Your task to perform on an android device: allow notifications from all sites in the chrome app Image 0: 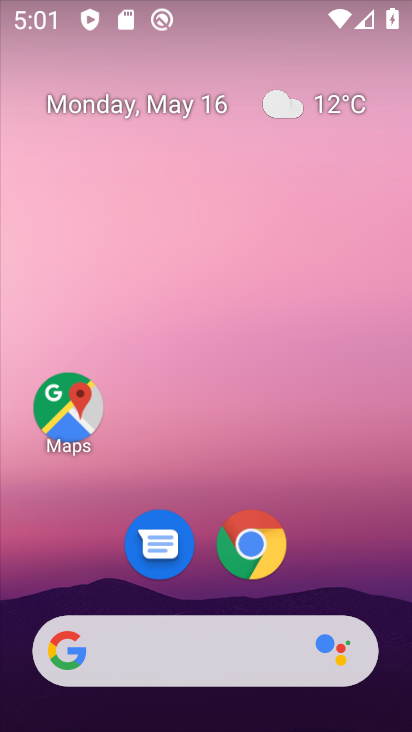
Step 0: click (254, 544)
Your task to perform on an android device: allow notifications from all sites in the chrome app Image 1: 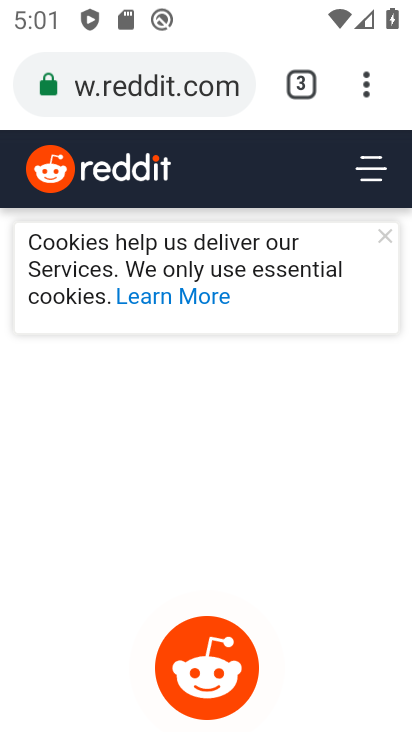
Step 1: click (367, 84)
Your task to perform on an android device: allow notifications from all sites in the chrome app Image 2: 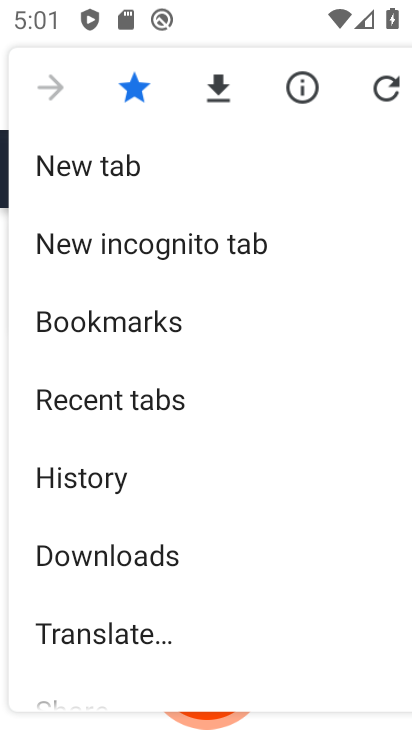
Step 2: drag from (159, 473) to (190, 396)
Your task to perform on an android device: allow notifications from all sites in the chrome app Image 3: 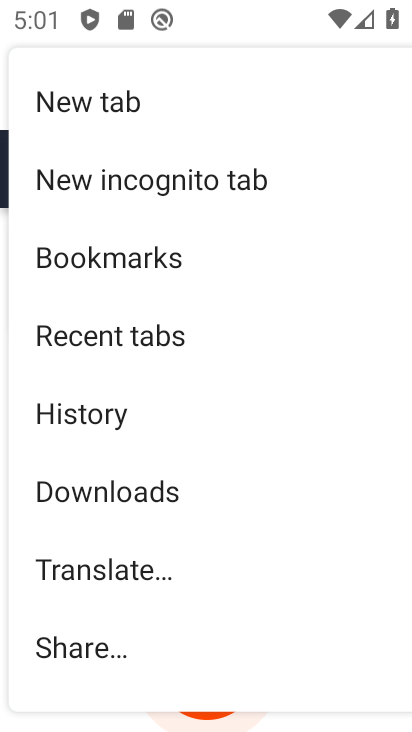
Step 3: drag from (141, 535) to (172, 467)
Your task to perform on an android device: allow notifications from all sites in the chrome app Image 4: 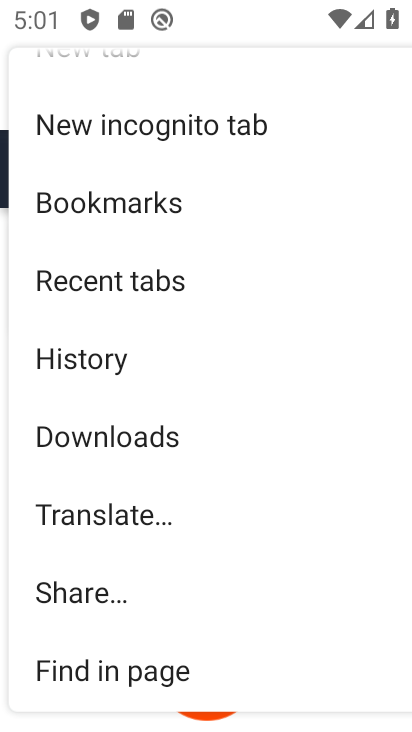
Step 4: drag from (161, 537) to (199, 436)
Your task to perform on an android device: allow notifications from all sites in the chrome app Image 5: 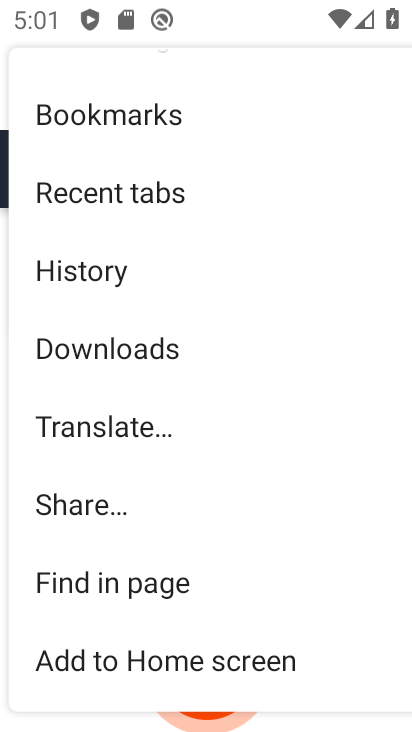
Step 5: drag from (136, 545) to (188, 450)
Your task to perform on an android device: allow notifications from all sites in the chrome app Image 6: 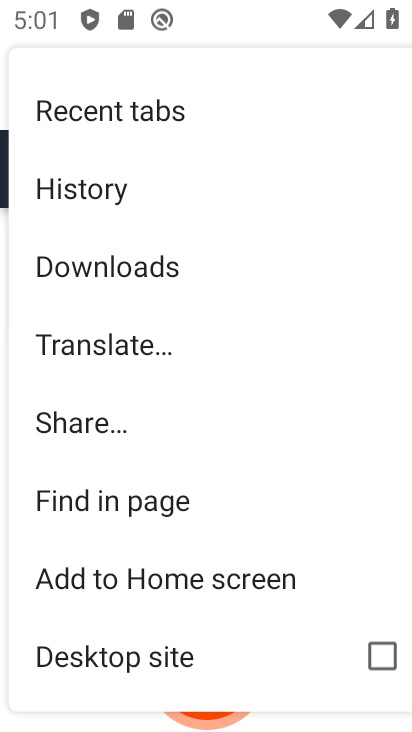
Step 6: drag from (143, 541) to (203, 427)
Your task to perform on an android device: allow notifications from all sites in the chrome app Image 7: 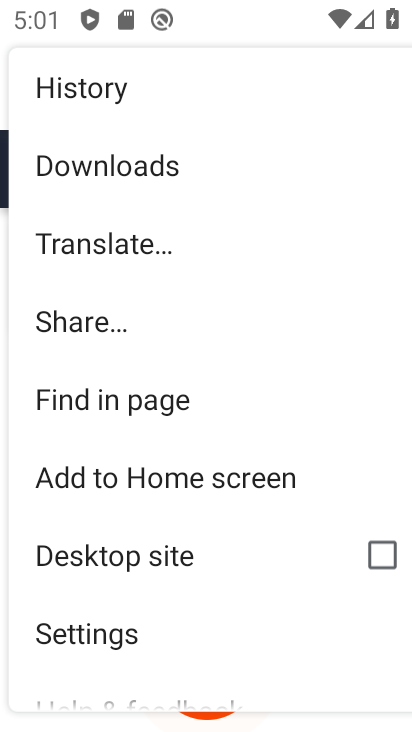
Step 7: drag from (119, 593) to (211, 438)
Your task to perform on an android device: allow notifications from all sites in the chrome app Image 8: 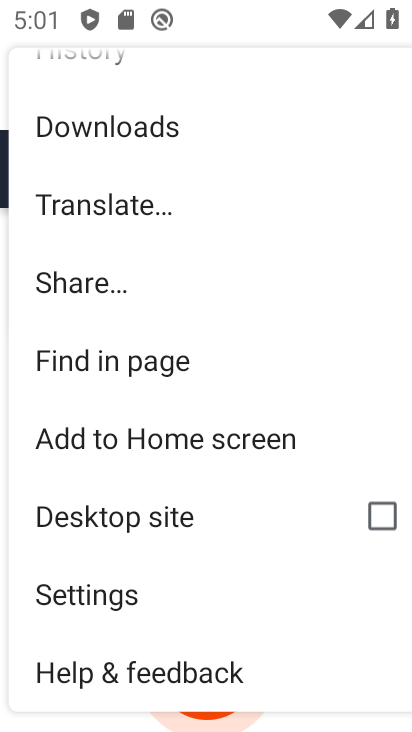
Step 8: click (96, 592)
Your task to perform on an android device: allow notifications from all sites in the chrome app Image 9: 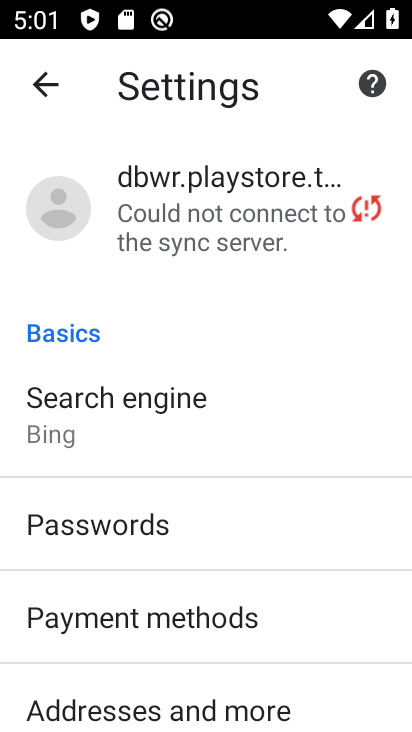
Step 9: drag from (137, 596) to (214, 467)
Your task to perform on an android device: allow notifications from all sites in the chrome app Image 10: 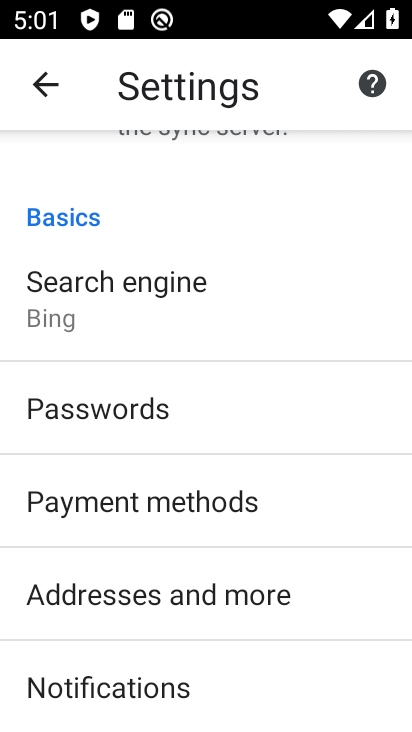
Step 10: drag from (139, 612) to (220, 518)
Your task to perform on an android device: allow notifications from all sites in the chrome app Image 11: 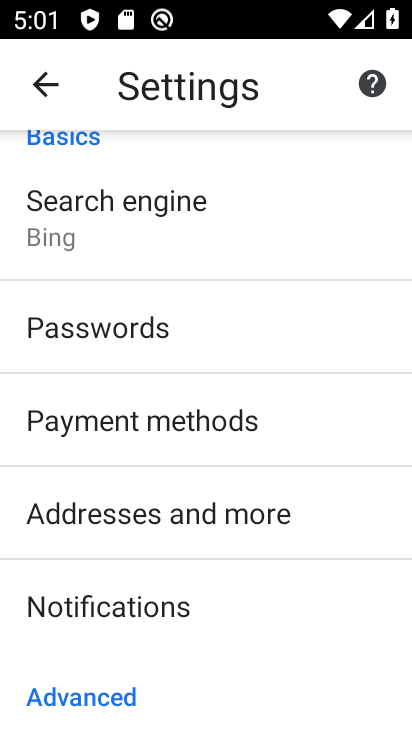
Step 11: drag from (115, 636) to (183, 543)
Your task to perform on an android device: allow notifications from all sites in the chrome app Image 12: 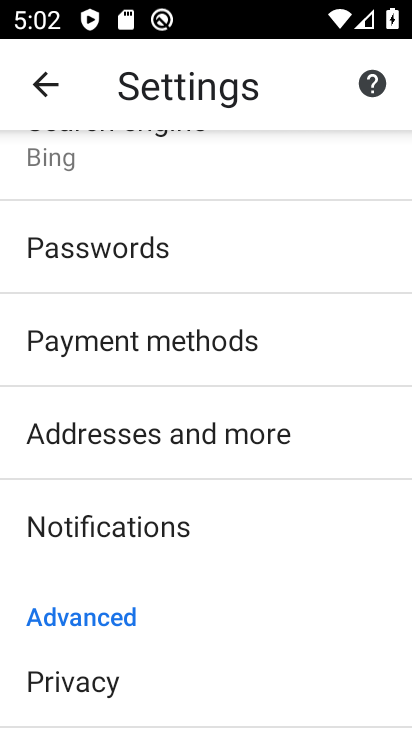
Step 12: drag from (148, 633) to (213, 524)
Your task to perform on an android device: allow notifications from all sites in the chrome app Image 13: 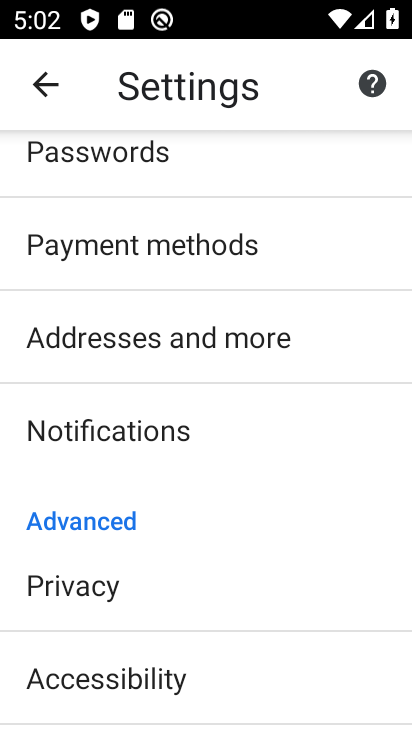
Step 13: drag from (139, 636) to (197, 549)
Your task to perform on an android device: allow notifications from all sites in the chrome app Image 14: 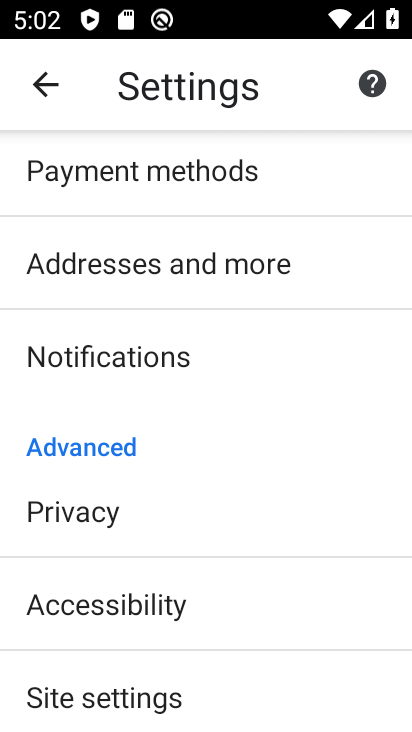
Step 14: drag from (120, 654) to (206, 550)
Your task to perform on an android device: allow notifications from all sites in the chrome app Image 15: 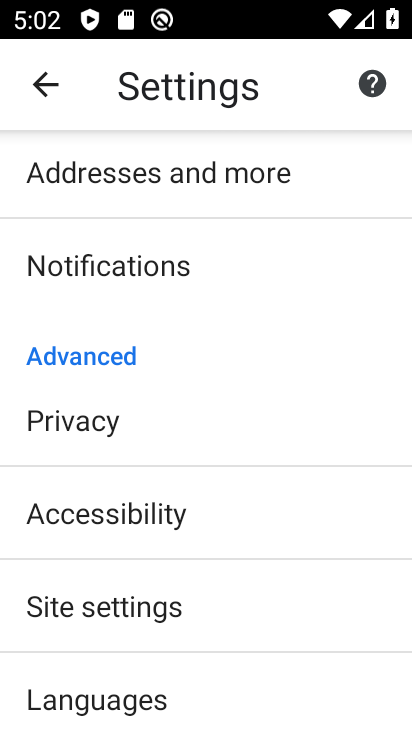
Step 15: click (147, 606)
Your task to perform on an android device: allow notifications from all sites in the chrome app Image 16: 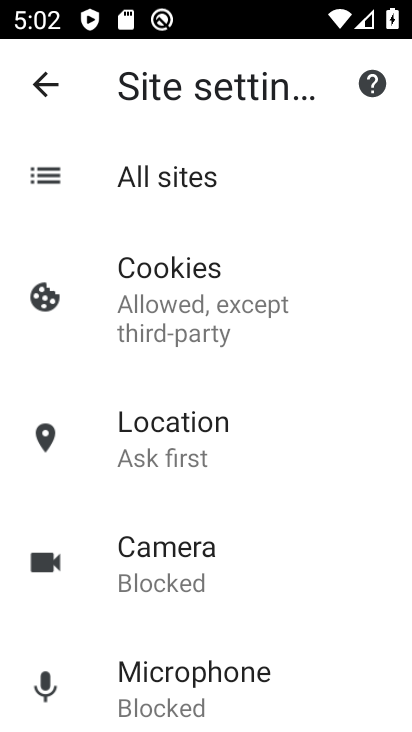
Step 16: drag from (192, 512) to (245, 427)
Your task to perform on an android device: allow notifications from all sites in the chrome app Image 17: 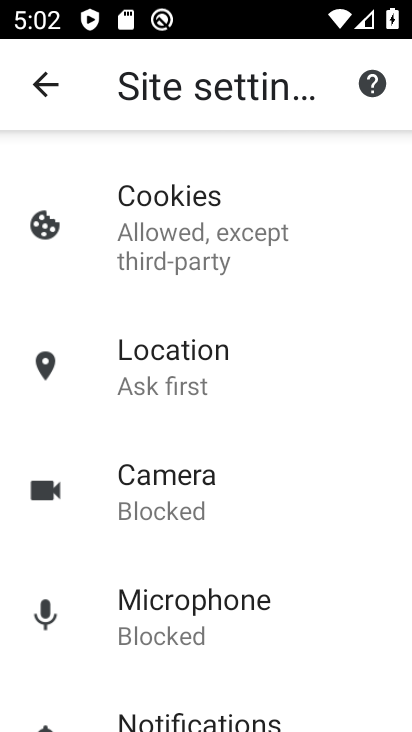
Step 17: drag from (191, 546) to (285, 430)
Your task to perform on an android device: allow notifications from all sites in the chrome app Image 18: 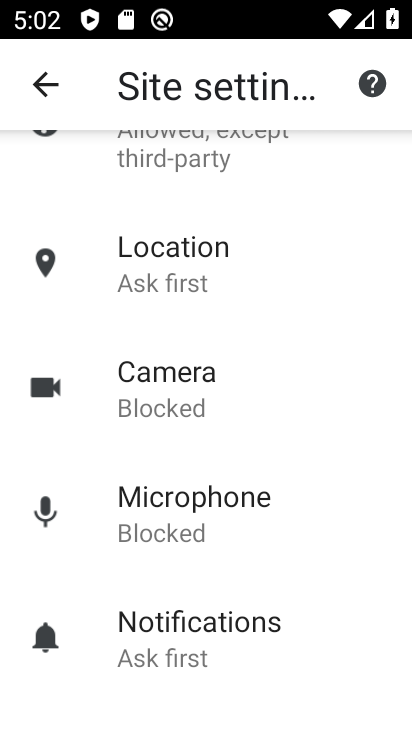
Step 18: click (219, 618)
Your task to perform on an android device: allow notifications from all sites in the chrome app Image 19: 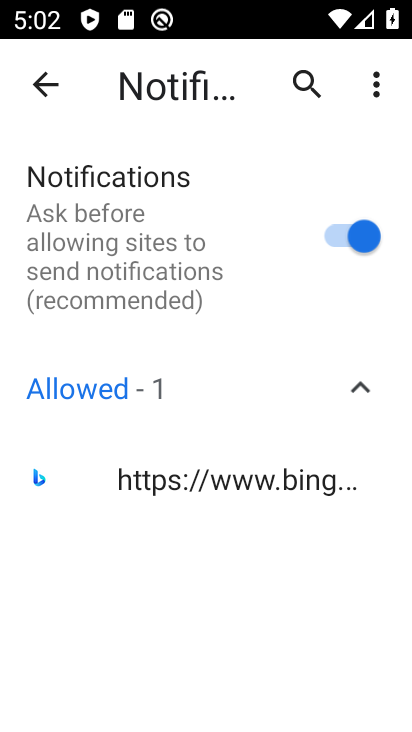
Step 19: task complete